Your task to perform on an android device: Open battery settings Image 0: 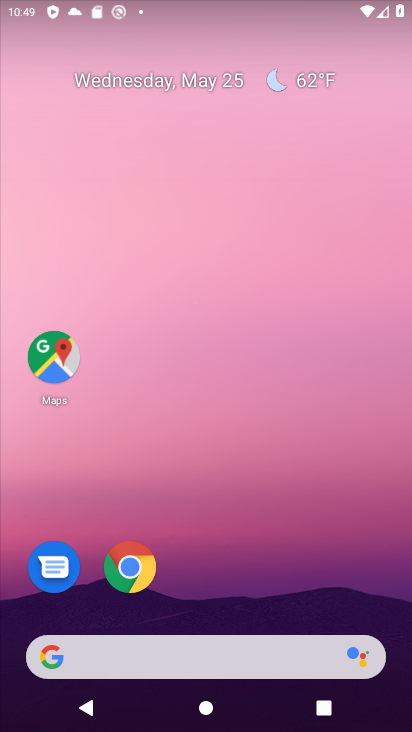
Step 0: drag from (358, 611) to (289, 45)
Your task to perform on an android device: Open battery settings Image 1: 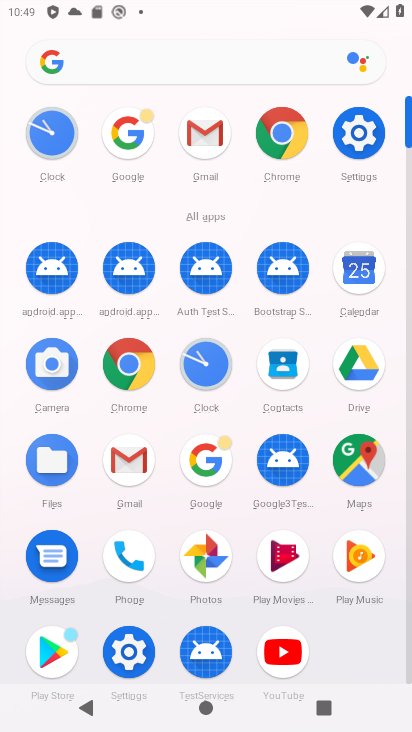
Step 1: click (367, 136)
Your task to perform on an android device: Open battery settings Image 2: 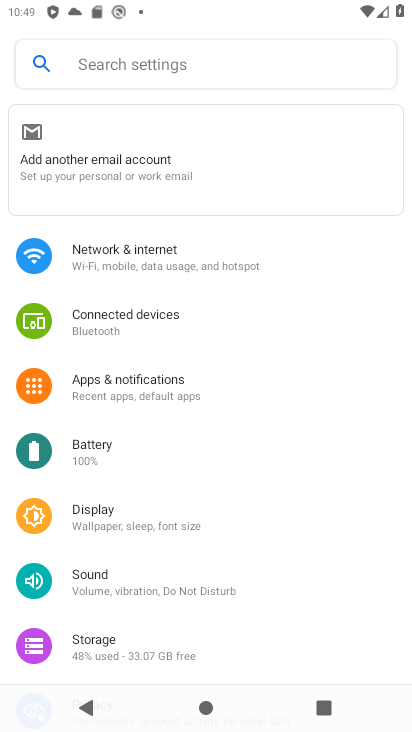
Step 2: click (113, 458)
Your task to perform on an android device: Open battery settings Image 3: 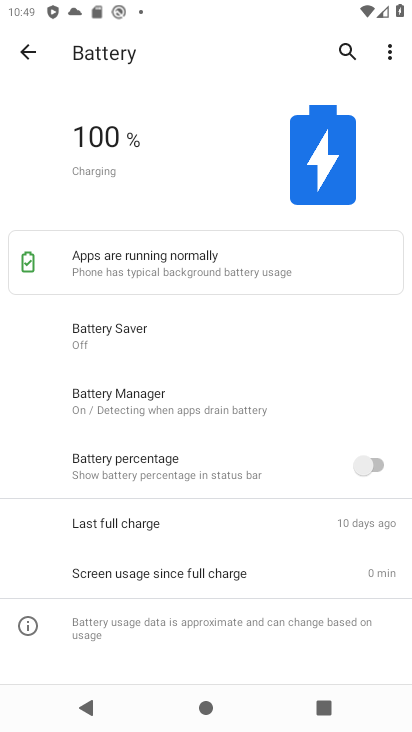
Step 3: task complete